Your task to perform on an android device: check out phone information Image 0: 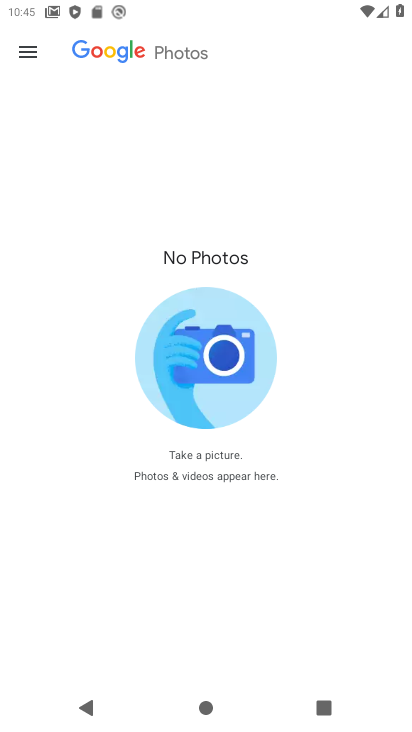
Step 0: press home button
Your task to perform on an android device: check out phone information Image 1: 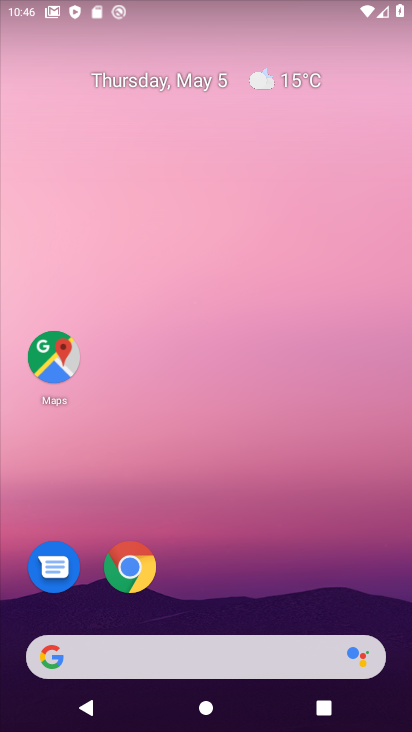
Step 1: drag from (206, 582) to (79, 104)
Your task to perform on an android device: check out phone information Image 2: 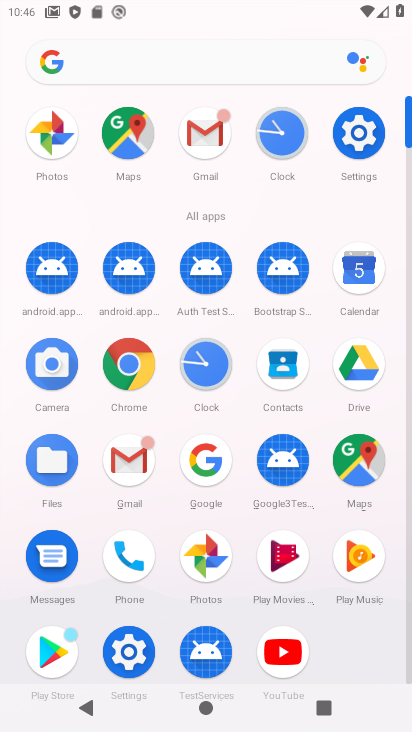
Step 2: click (128, 556)
Your task to perform on an android device: check out phone information Image 3: 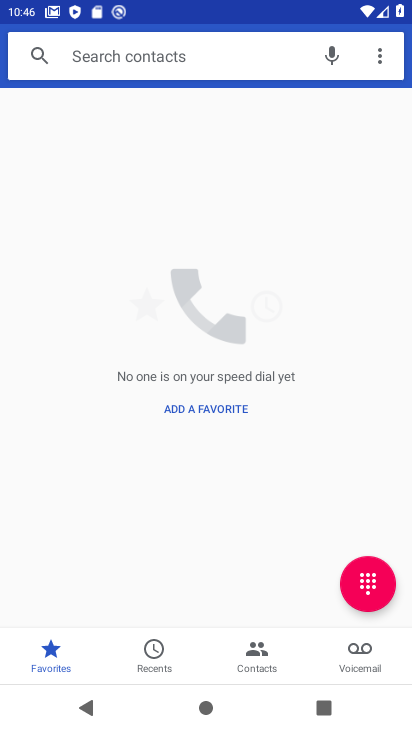
Step 3: click (381, 53)
Your task to perform on an android device: check out phone information Image 4: 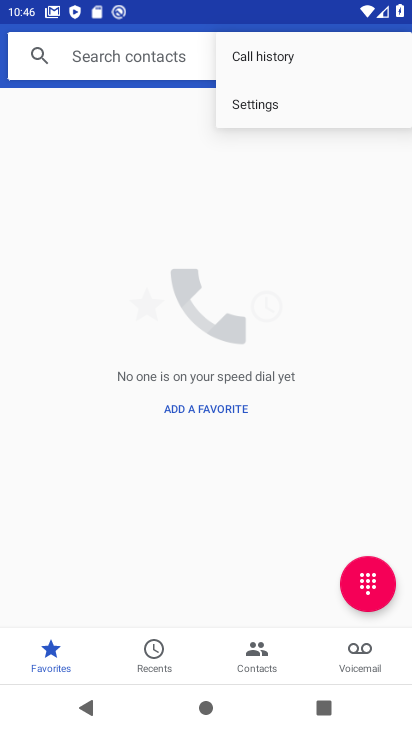
Step 4: click (253, 104)
Your task to perform on an android device: check out phone information Image 5: 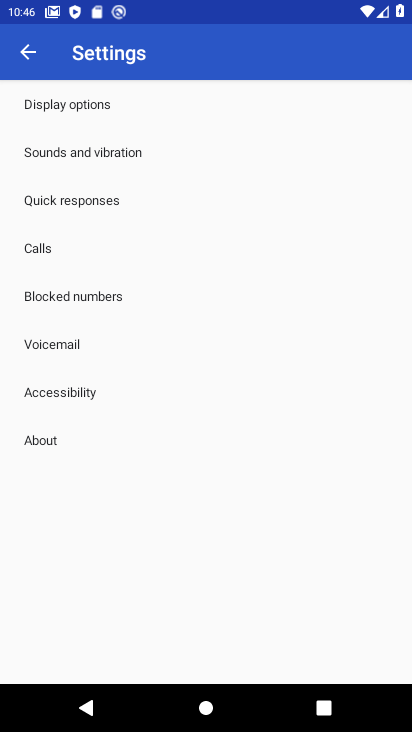
Step 5: click (43, 442)
Your task to perform on an android device: check out phone information Image 6: 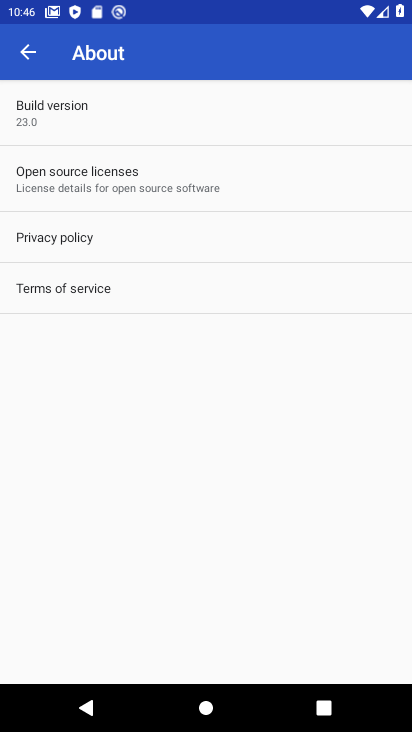
Step 6: task complete